Your task to perform on an android device: turn on data saver in the chrome app Image 0: 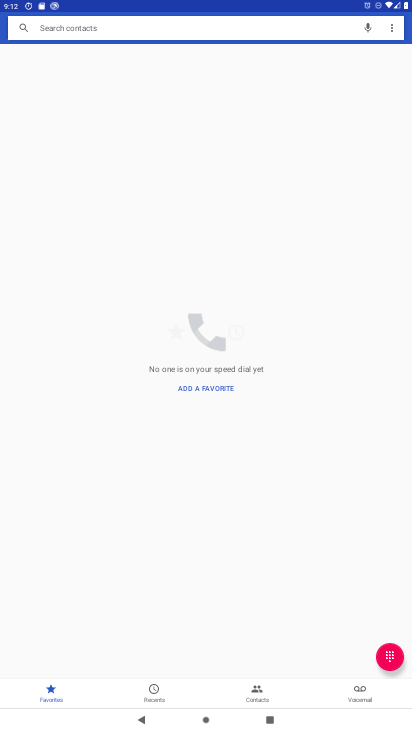
Step 0: press home button
Your task to perform on an android device: turn on data saver in the chrome app Image 1: 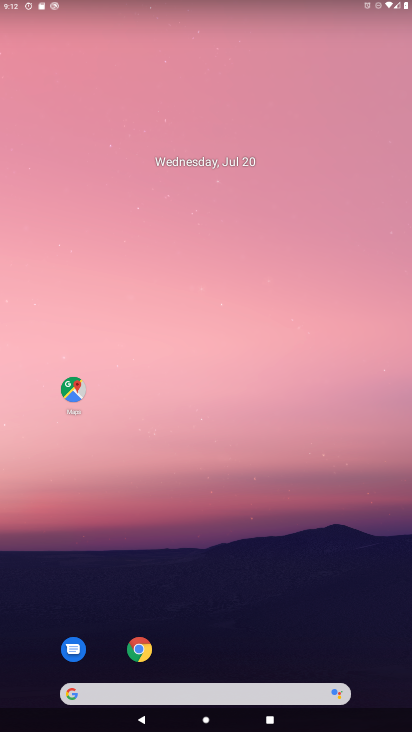
Step 1: click (140, 649)
Your task to perform on an android device: turn on data saver in the chrome app Image 2: 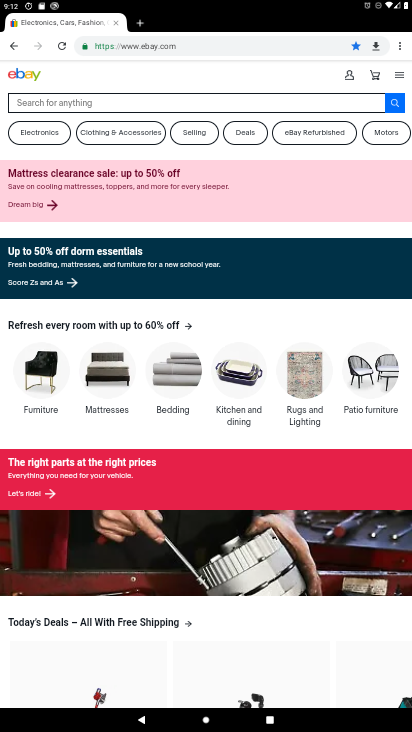
Step 2: click (399, 45)
Your task to perform on an android device: turn on data saver in the chrome app Image 3: 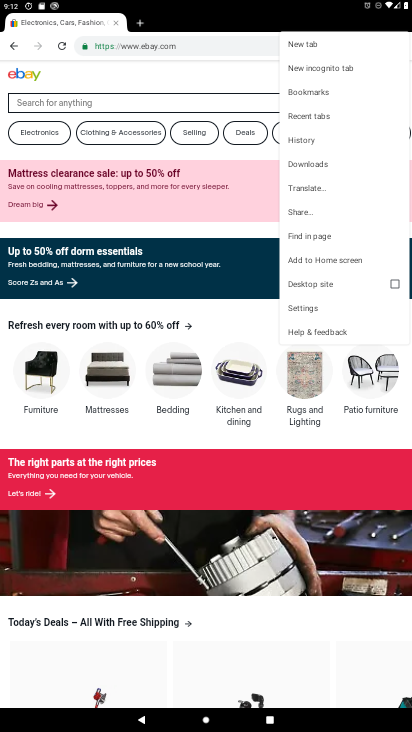
Step 3: click (310, 307)
Your task to perform on an android device: turn on data saver in the chrome app Image 4: 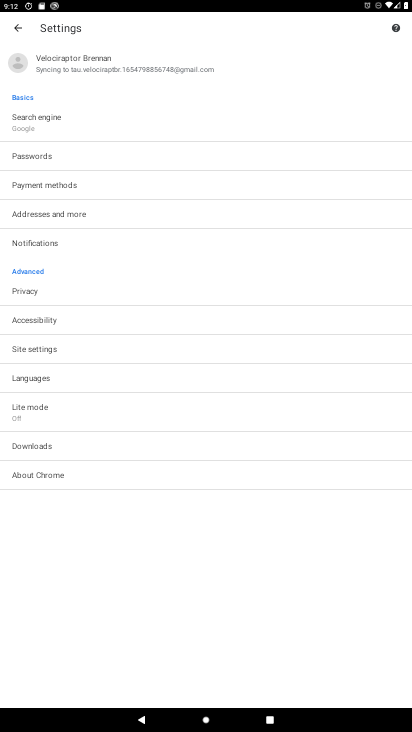
Step 4: click (44, 409)
Your task to perform on an android device: turn on data saver in the chrome app Image 5: 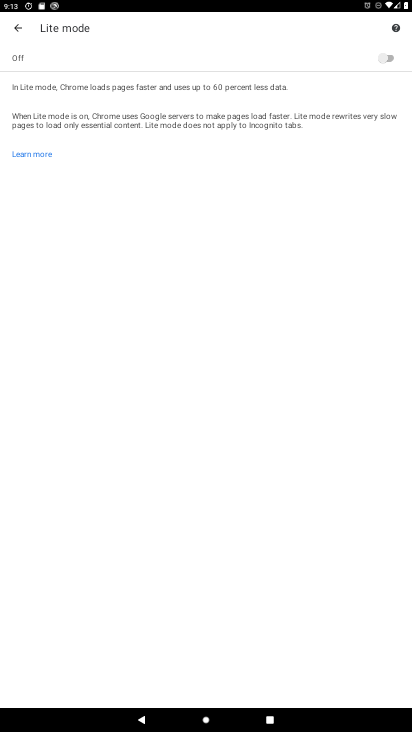
Step 5: click (389, 52)
Your task to perform on an android device: turn on data saver in the chrome app Image 6: 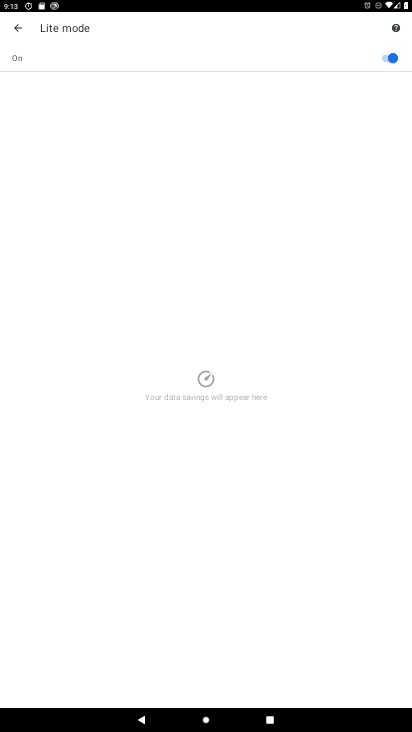
Step 6: task complete